Your task to perform on an android device: Open Chrome and go to settings Image 0: 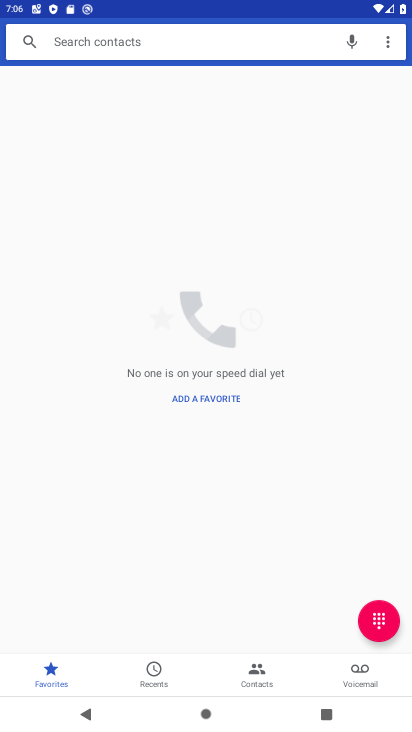
Step 0: press home button
Your task to perform on an android device: Open Chrome and go to settings Image 1: 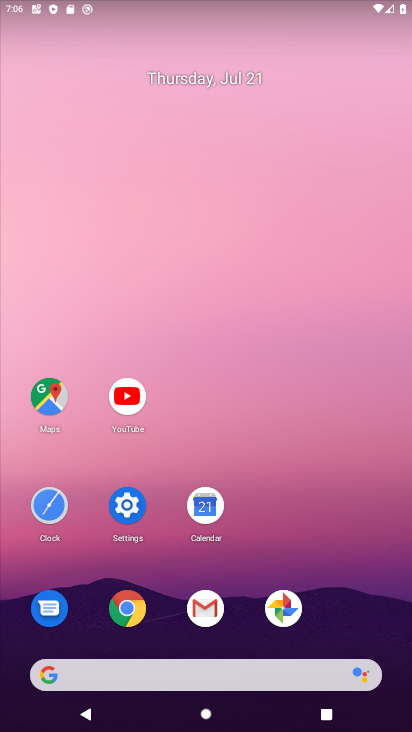
Step 1: click (126, 612)
Your task to perform on an android device: Open Chrome and go to settings Image 2: 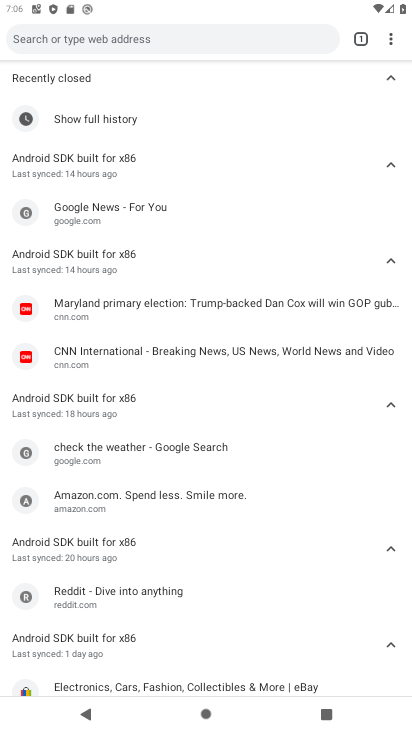
Step 2: click (391, 36)
Your task to perform on an android device: Open Chrome and go to settings Image 3: 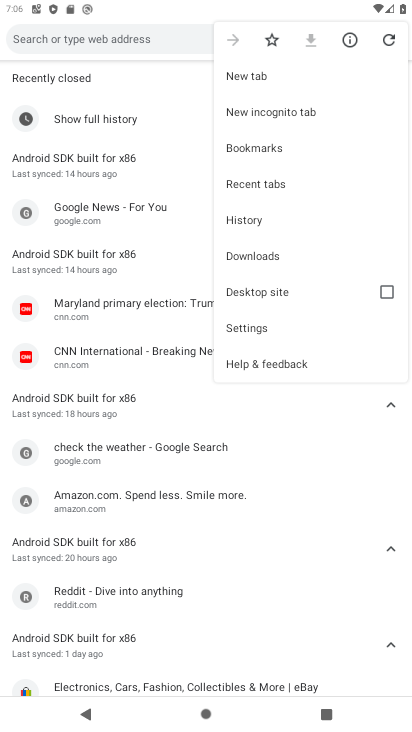
Step 3: click (249, 321)
Your task to perform on an android device: Open Chrome and go to settings Image 4: 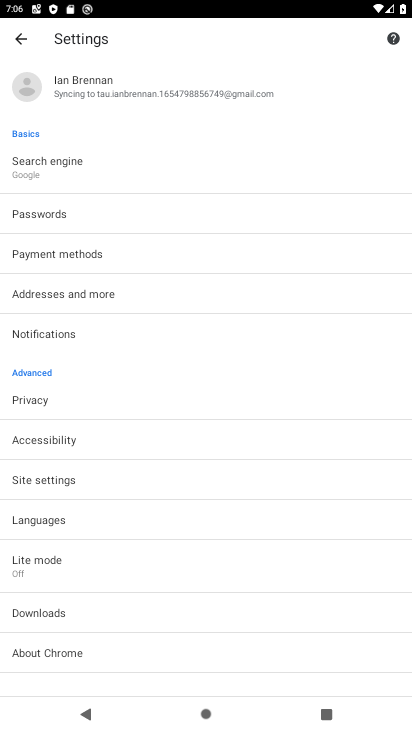
Step 4: task complete